Your task to perform on an android device: Open Chrome and go to settings Image 0: 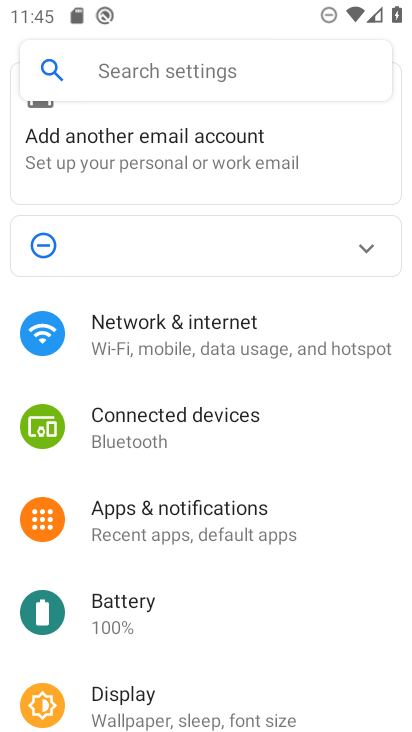
Step 0: press home button
Your task to perform on an android device: Open Chrome and go to settings Image 1: 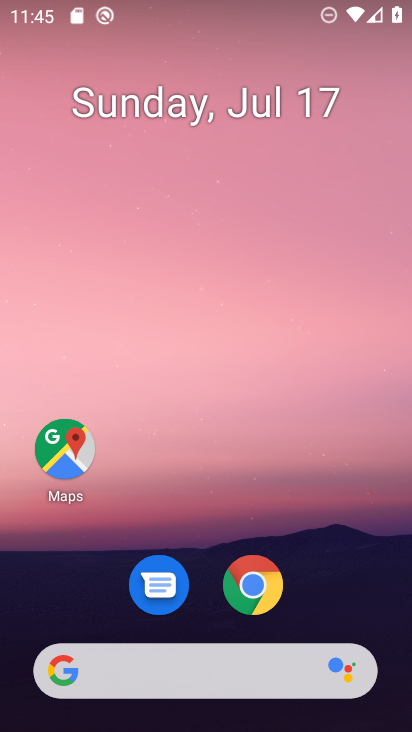
Step 1: click (250, 589)
Your task to perform on an android device: Open Chrome and go to settings Image 2: 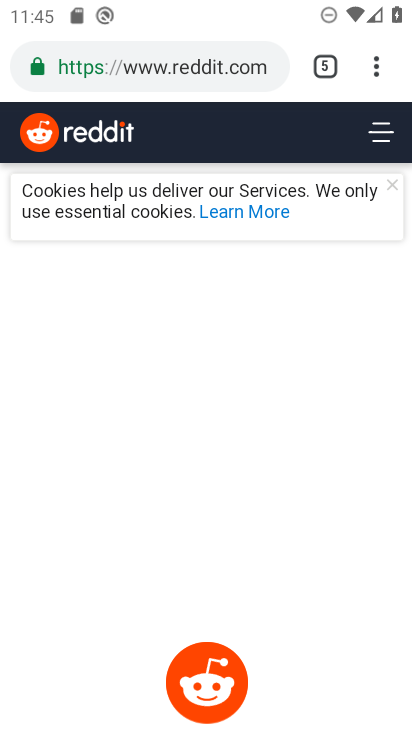
Step 2: task complete